Your task to perform on an android device: toggle sleep mode Image 0: 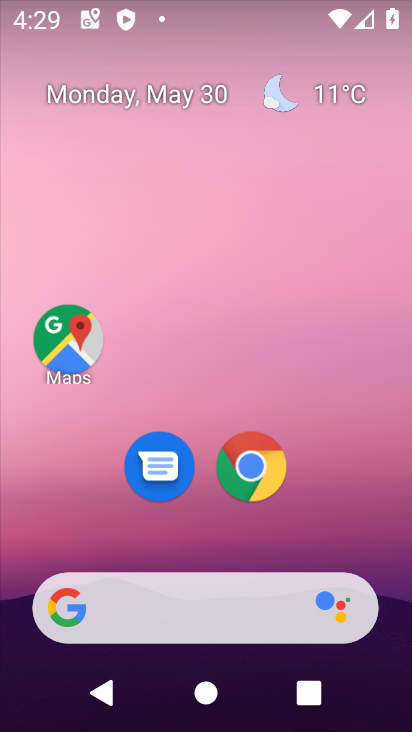
Step 0: drag from (360, 554) to (317, 76)
Your task to perform on an android device: toggle sleep mode Image 1: 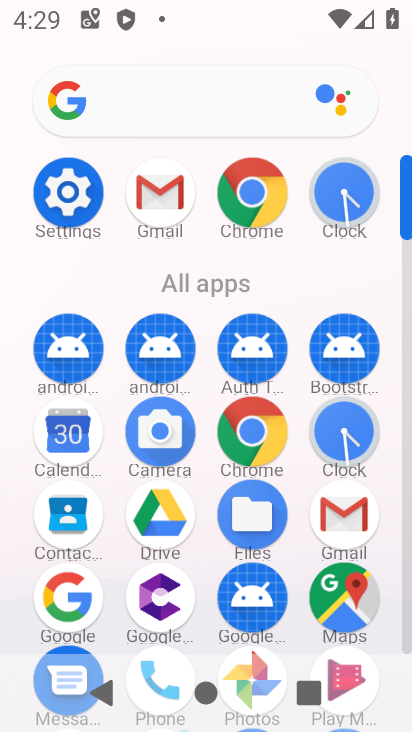
Step 1: click (77, 188)
Your task to perform on an android device: toggle sleep mode Image 2: 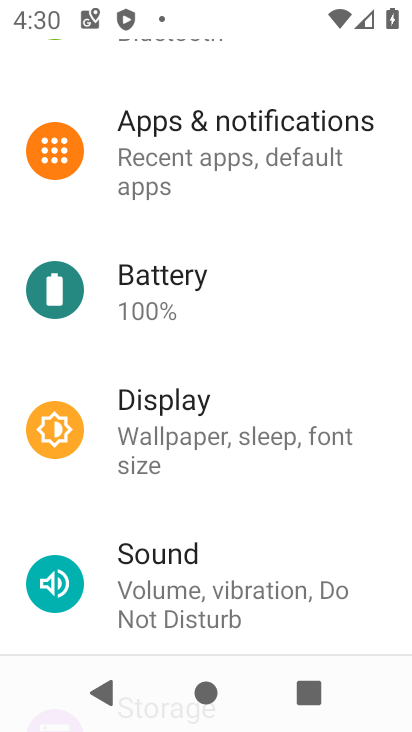
Step 2: click (270, 433)
Your task to perform on an android device: toggle sleep mode Image 3: 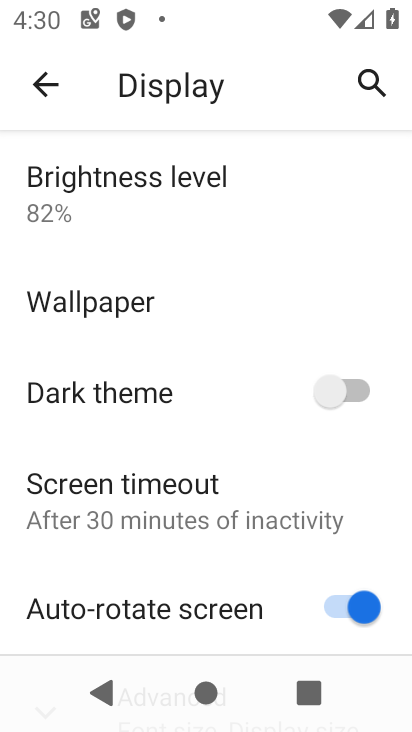
Step 3: click (224, 518)
Your task to perform on an android device: toggle sleep mode Image 4: 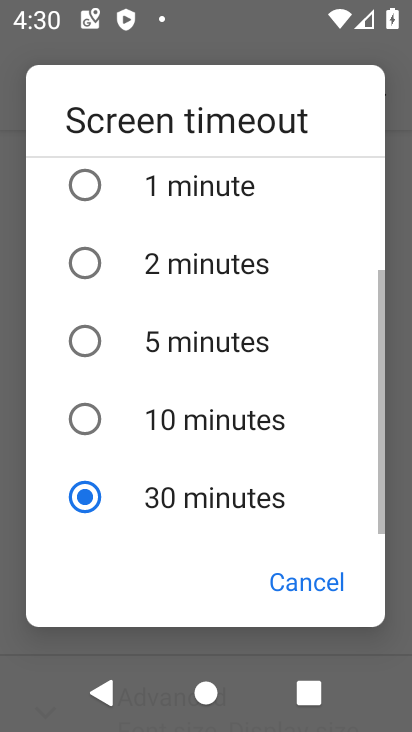
Step 4: click (228, 421)
Your task to perform on an android device: toggle sleep mode Image 5: 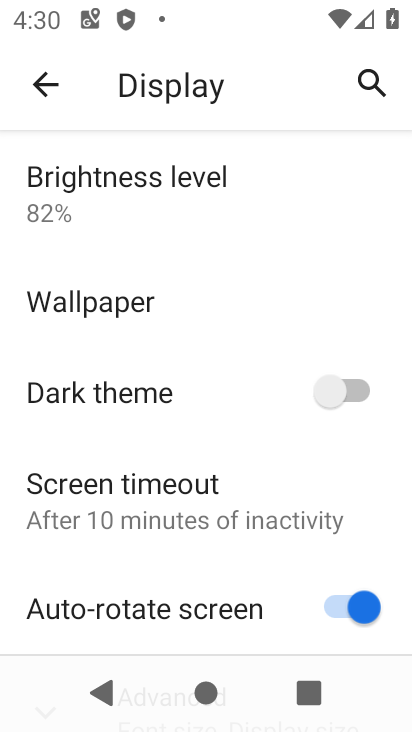
Step 5: task complete